Your task to perform on an android device: turn off improve location accuracy Image 0: 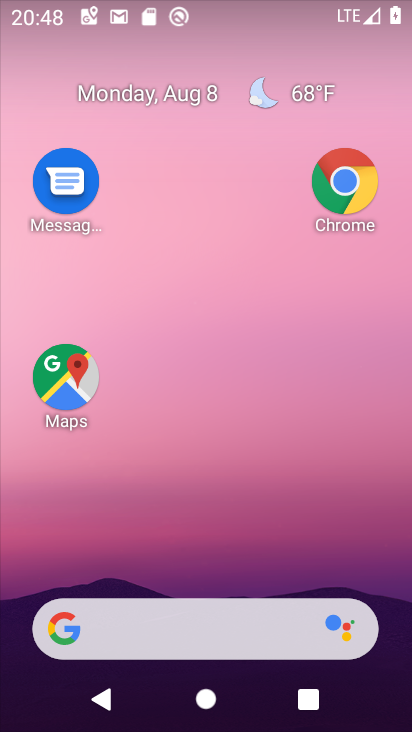
Step 0: drag from (192, 577) to (149, 69)
Your task to perform on an android device: turn off improve location accuracy Image 1: 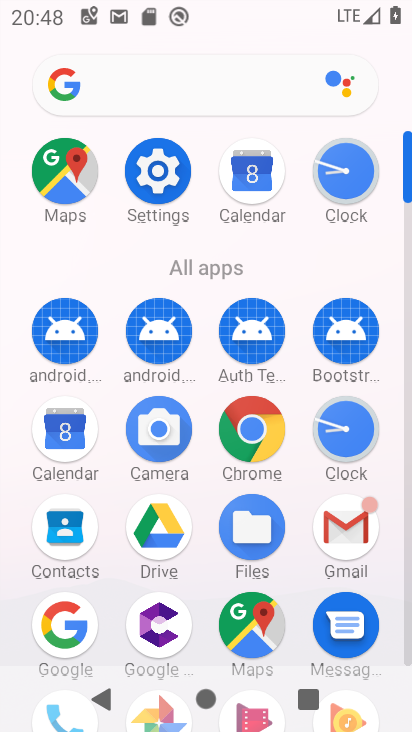
Step 1: click (152, 182)
Your task to perform on an android device: turn off improve location accuracy Image 2: 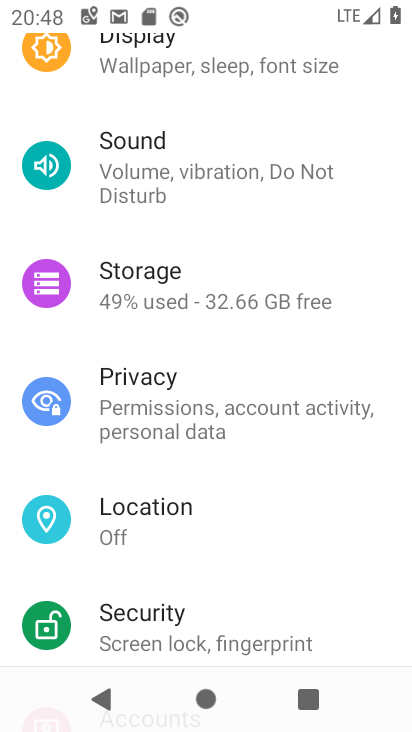
Step 2: drag from (152, 182) to (238, 520)
Your task to perform on an android device: turn off improve location accuracy Image 3: 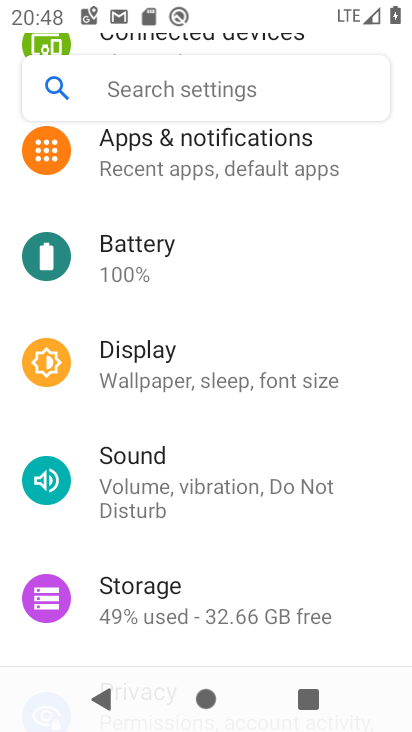
Step 3: drag from (238, 520) to (197, 253)
Your task to perform on an android device: turn off improve location accuracy Image 4: 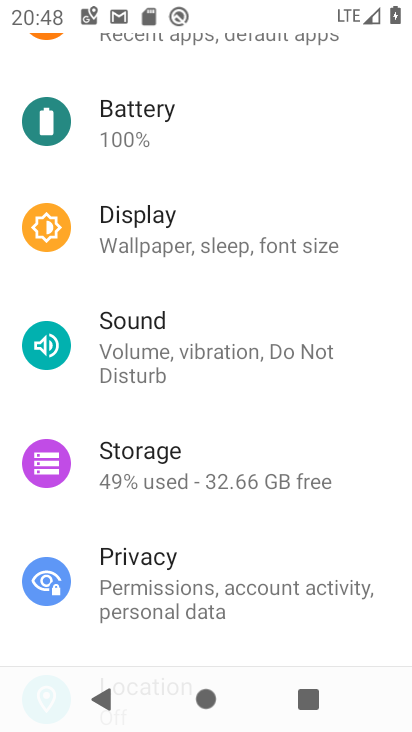
Step 4: drag from (197, 474) to (160, 252)
Your task to perform on an android device: turn off improve location accuracy Image 5: 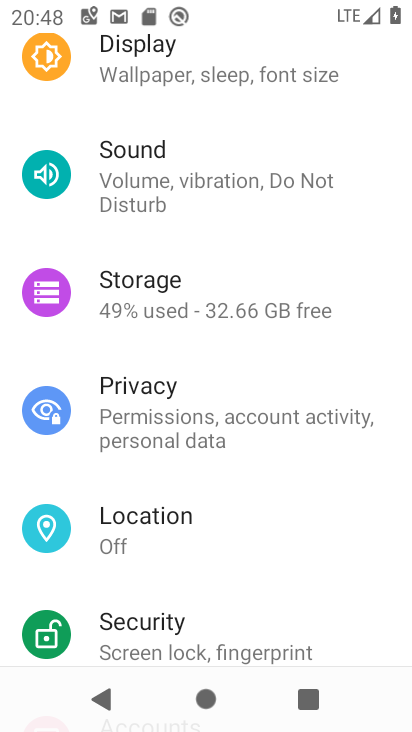
Step 5: click (198, 521)
Your task to perform on an android device: turn off improve location accuracy Image 6: 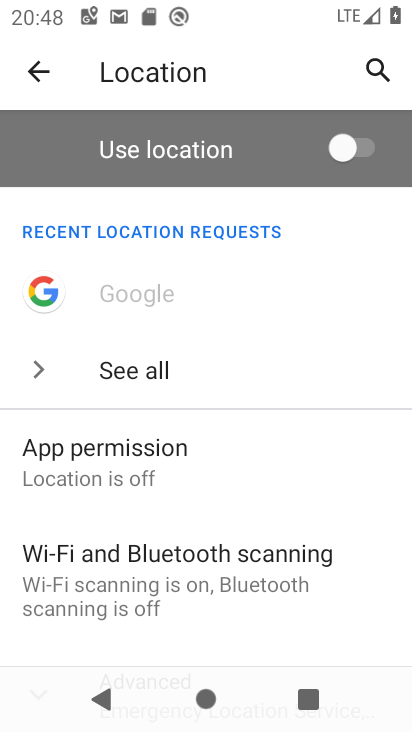
Step 6: drag from (237, 462) to (153, 108)
Your task to perform on an android device: turn off improve location accuracy Image 7: 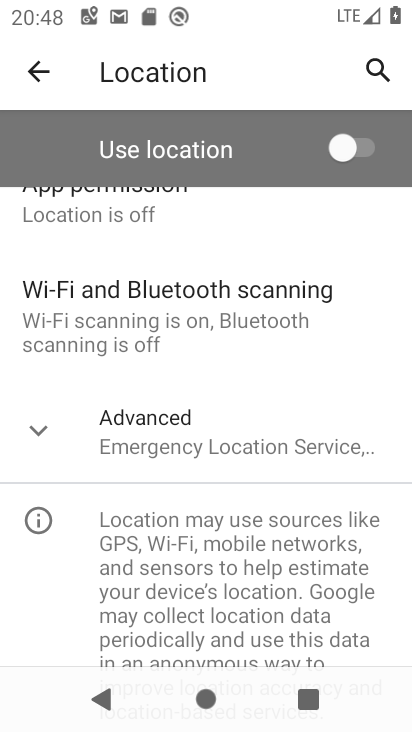
Step 7: click (205, 414)
Your task to perform on an android device: turn off improve location accuracy Image 8: 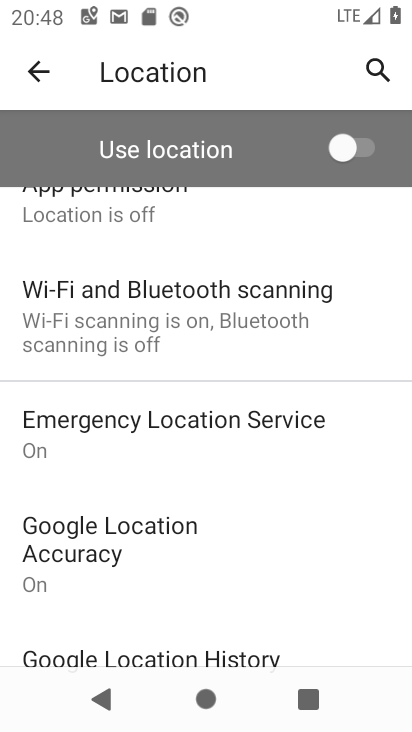
Step 8: click (131, 511)
Your task to perform on an android device: turn off improve location accuracy Image 9: 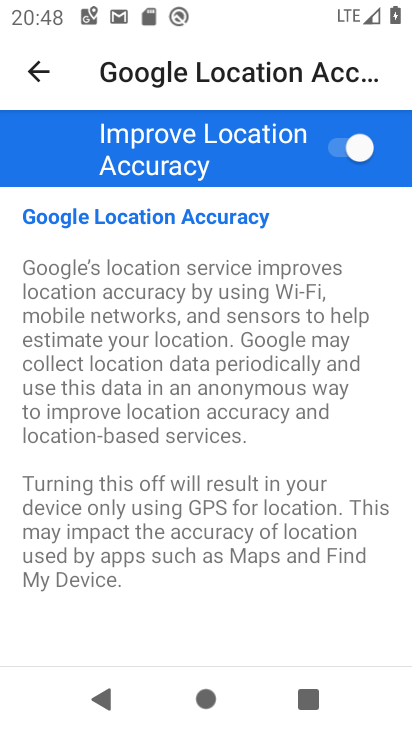
Step 9: click (335, 136)
Your task to perform on an android device: turn off improve location accuracy Image 10: 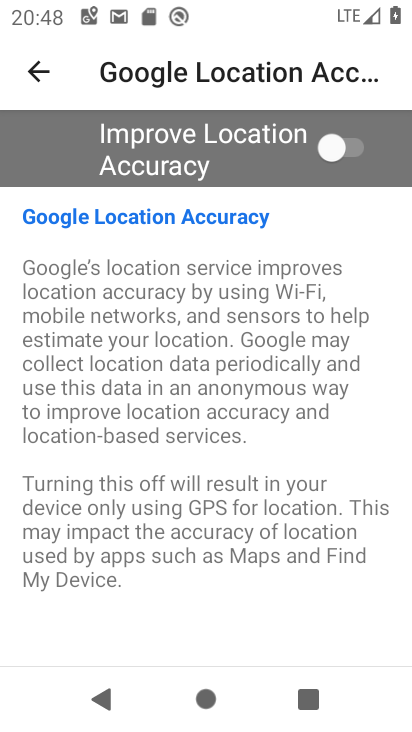
Step 10: task complete